Your task to perform on an android device: install app "Skype" Image 0: 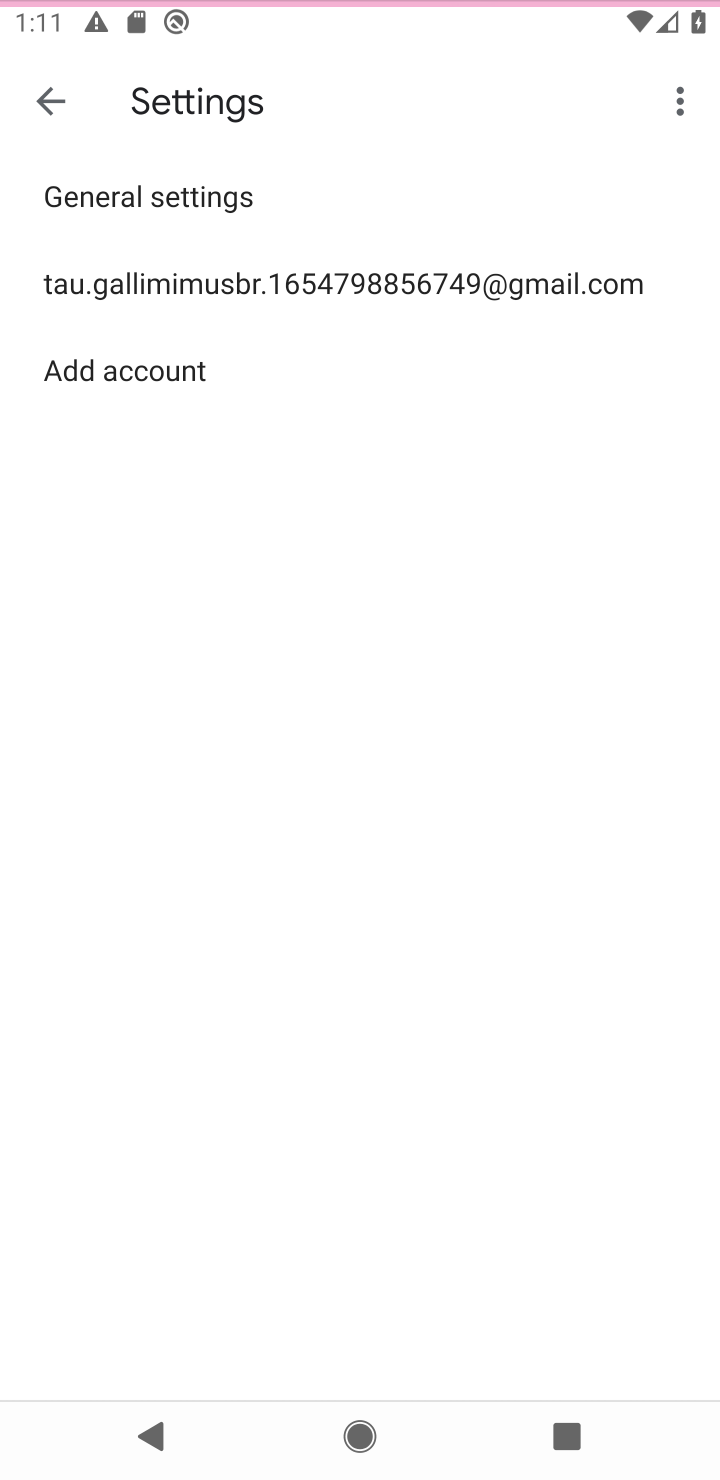
Step 0: press home button
Your task to perform on an android device: install app "Skype" Image 1: 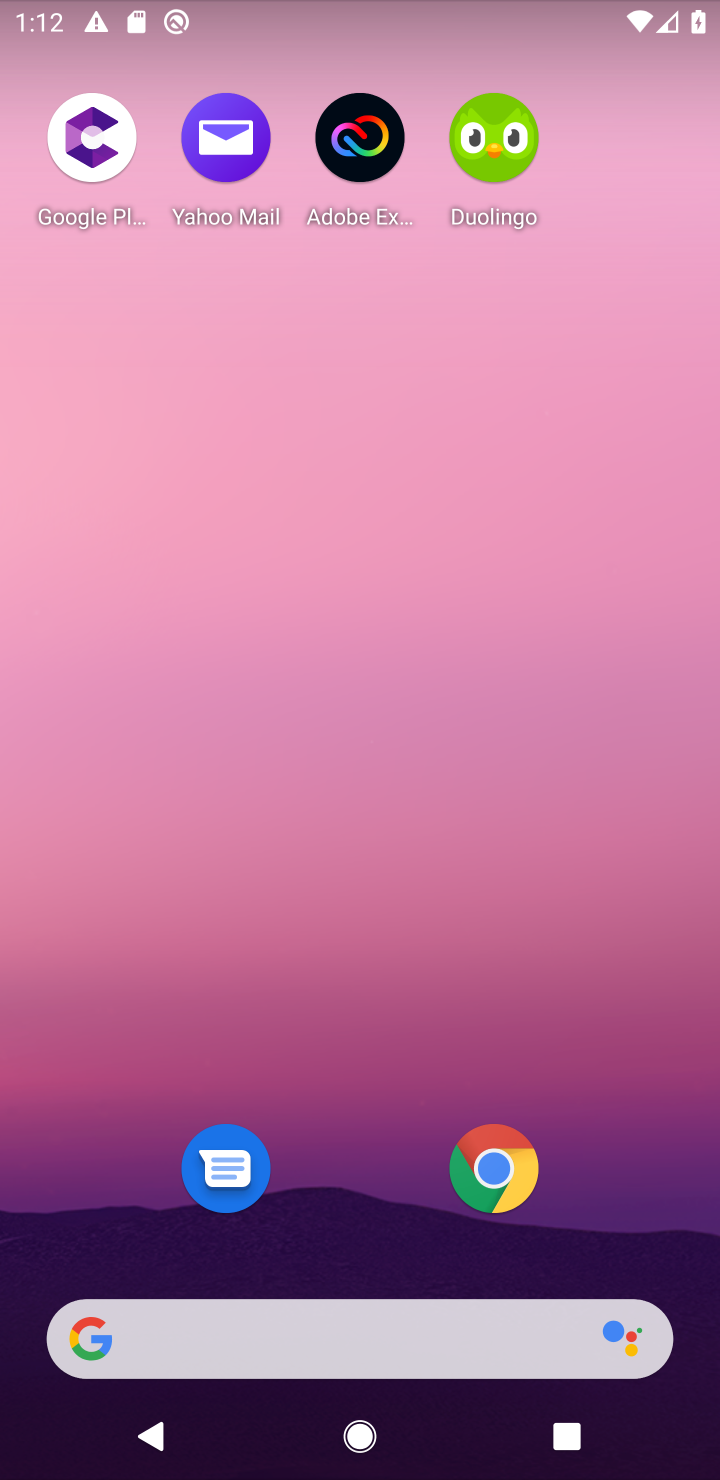
Step 1: drag from (353, 1159) to (693, 222)
Your task to perform on an android device: install app "Skype" Image 2: 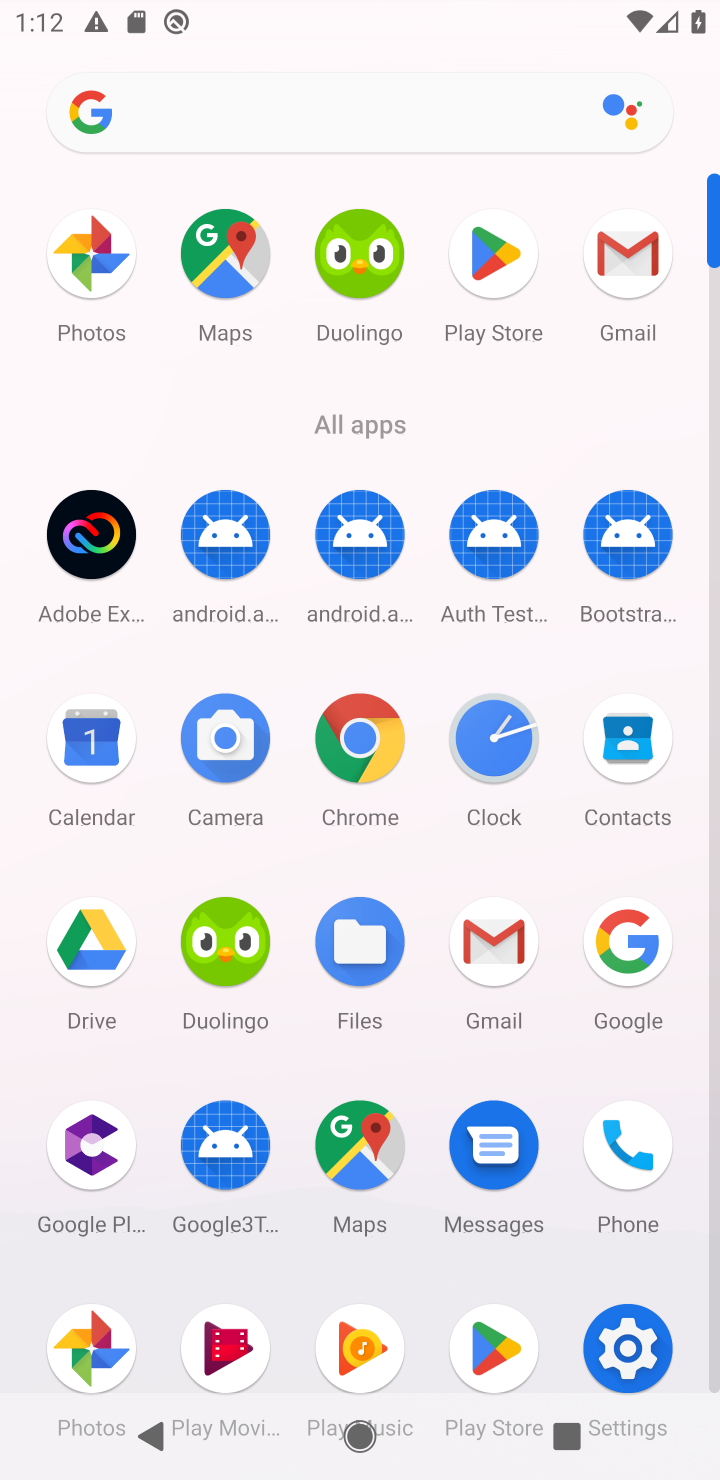
Step 2: click (492, 259)
Your task to perform on an android device: install app "Skype" Image 3: 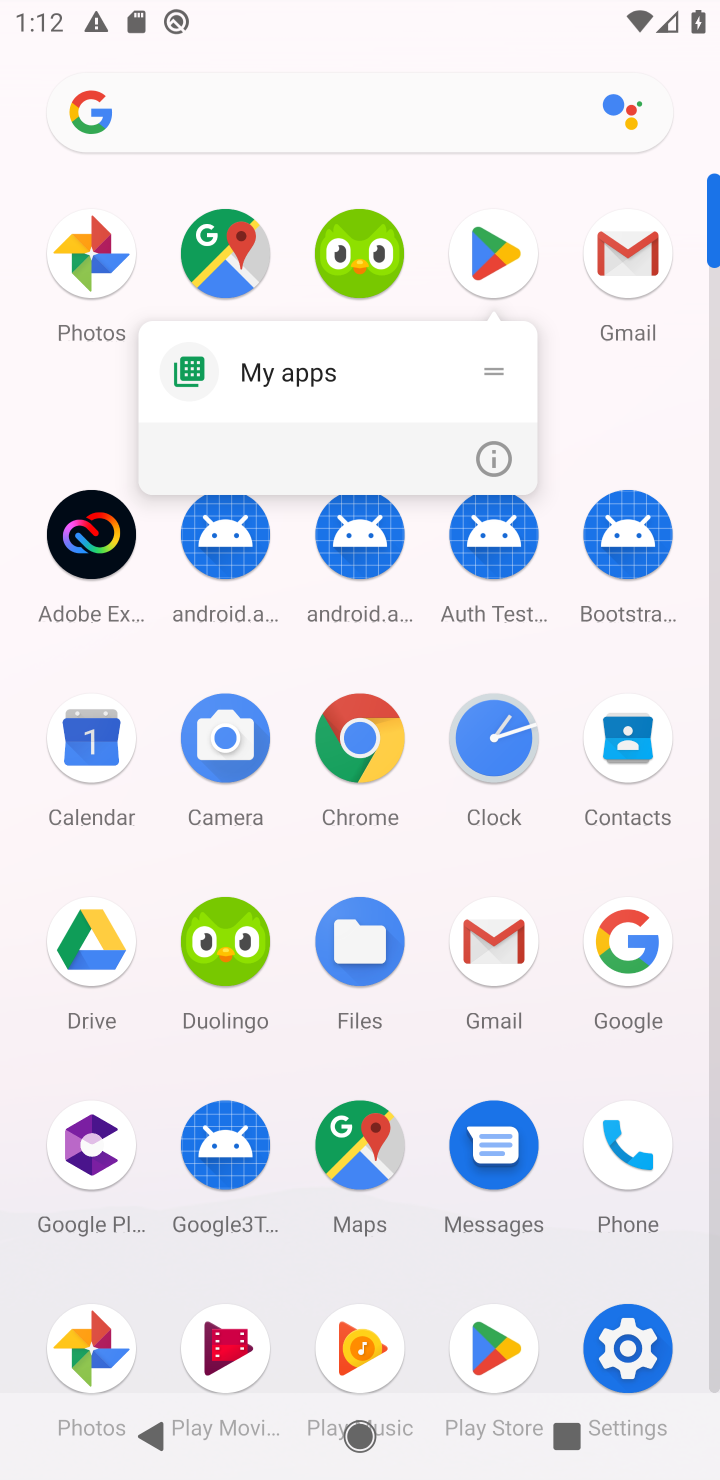
Step 3: click (482, 246)
Your task to perform on an android device: install app "Skype" Image 4: 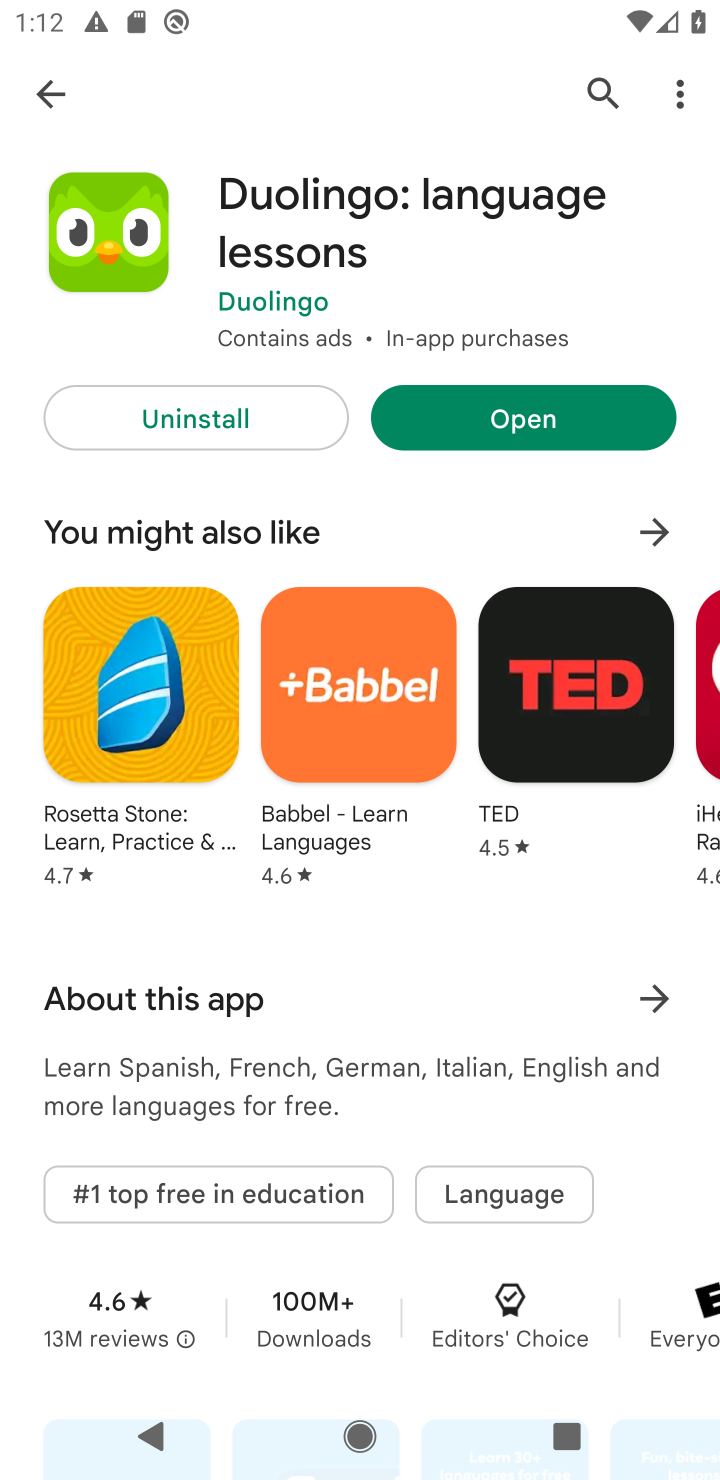
Step 4: click (610, 77)
Your task to perform on an android device: install app "Skype" Image 5: 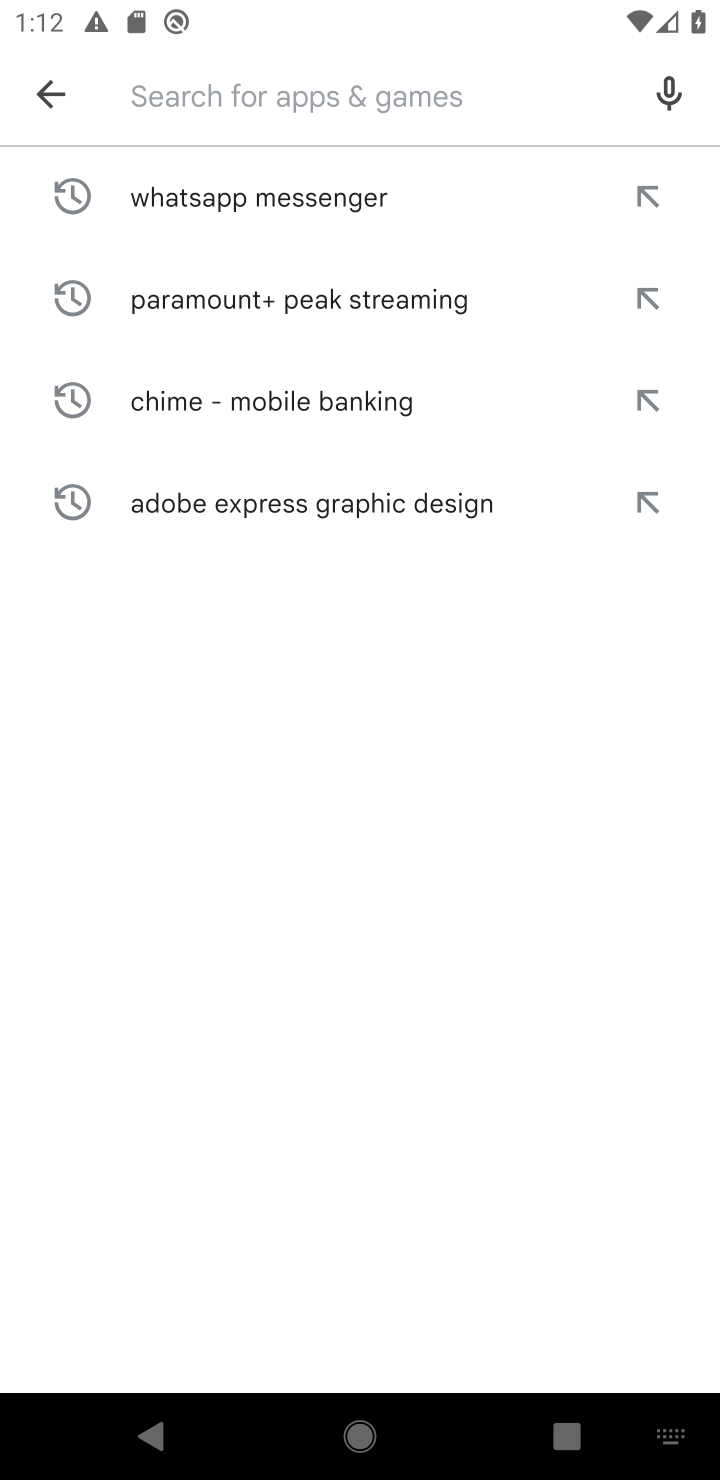
Step 5: type "skype"
Your task to perform on an android device: install app "Skype" Image 6: 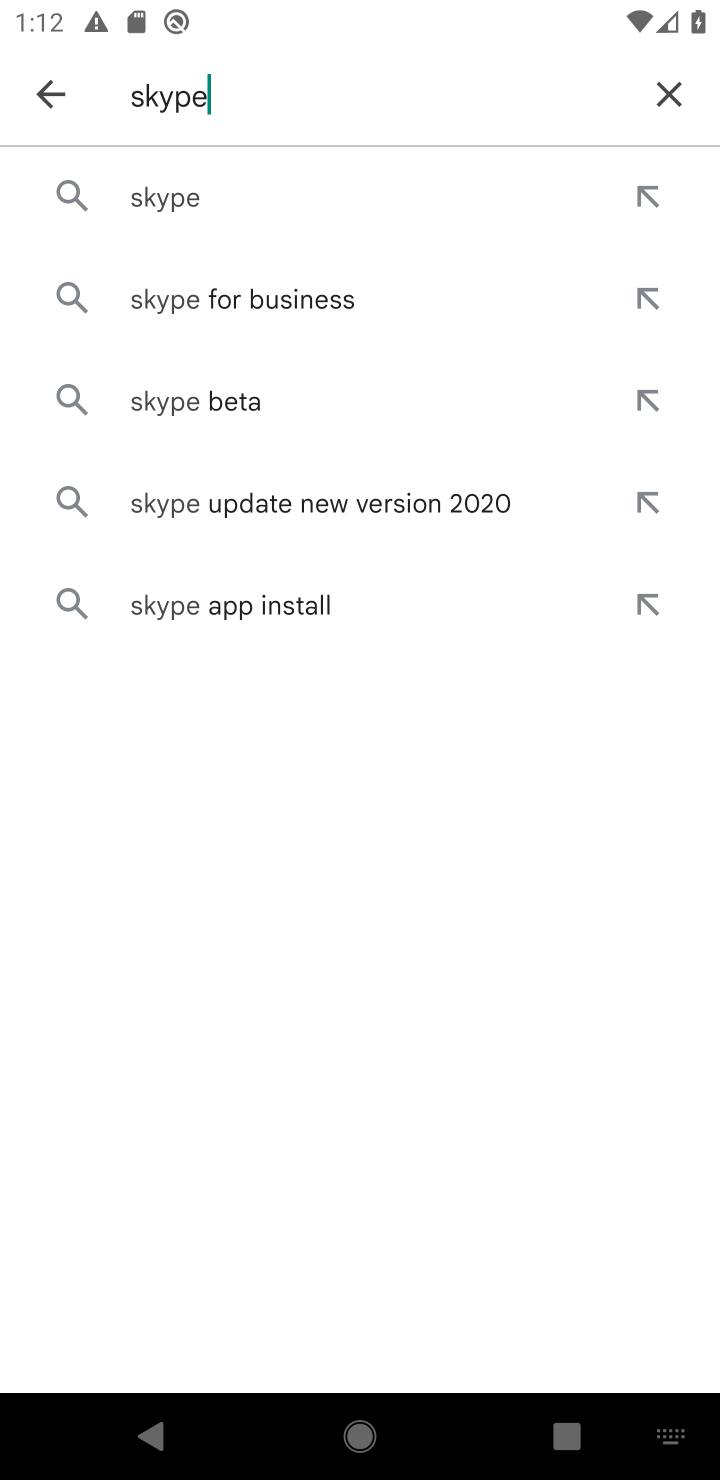
Step 6: click (432, 207)
Your task to perform on an android device: install app "Skype" Image 7: 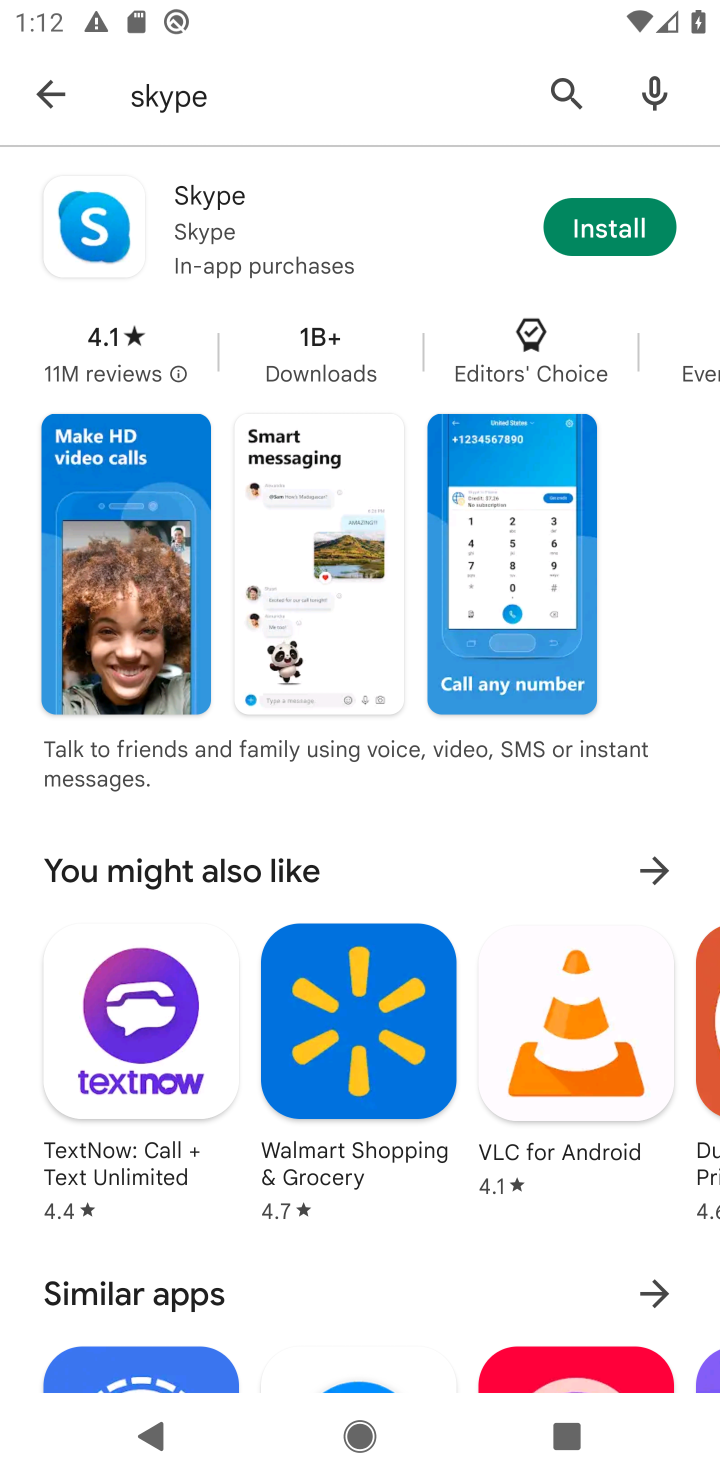
Step 7: click (263, 215)
Your task to perform on an android device: install app "Skype" Image 8: 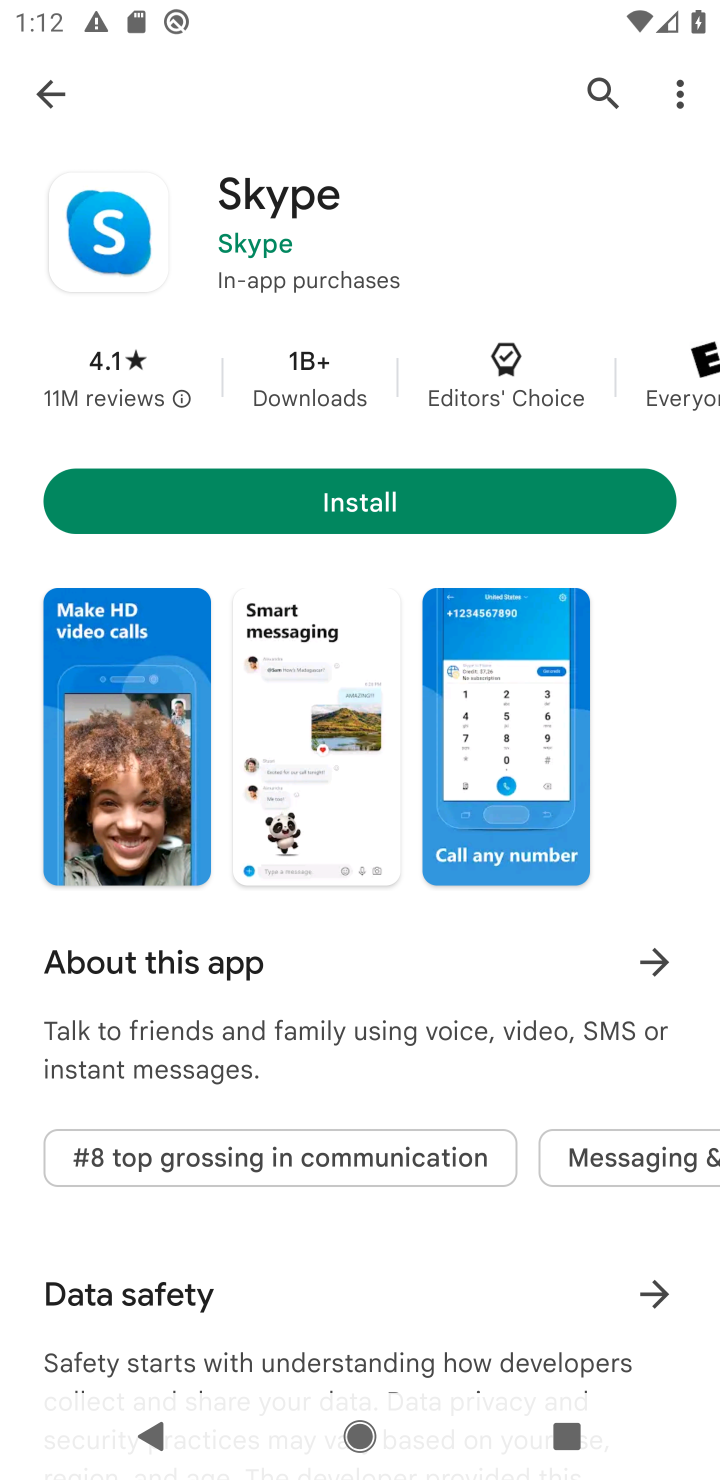
Step 8: click (263, 482)
Your task to perform on an android device: install app "Skype" Image 9: 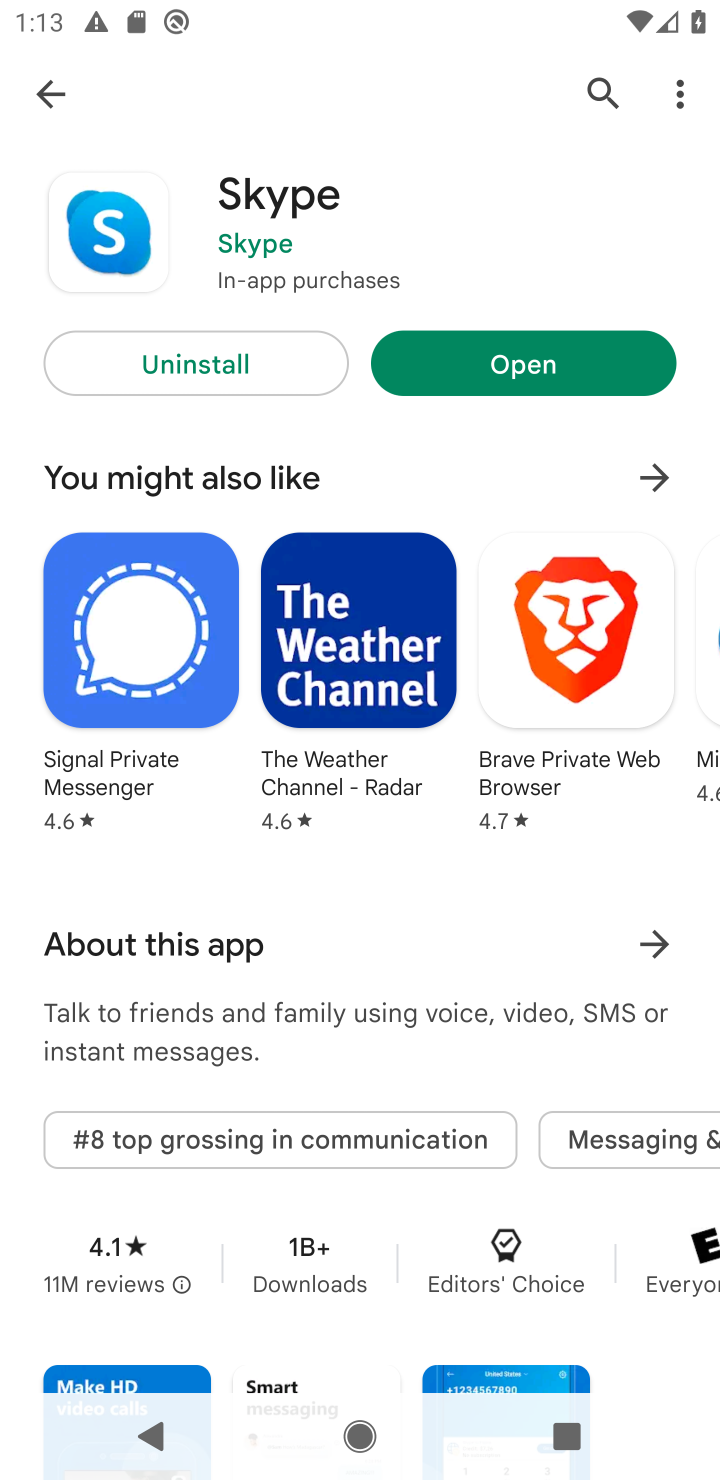
Step 9: task complete